Your task to perform on an android device: toggle sleep mode Image 0: 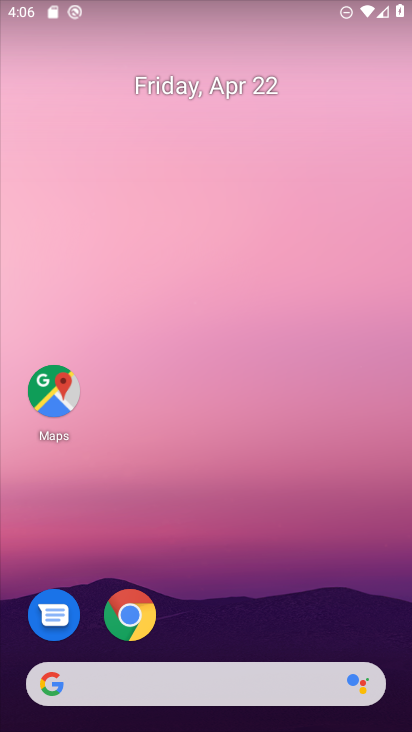
Step 0: drag from (245, 615) to (293, 32)
Your task to perform on an android device: toggle sleep mode Image 1: 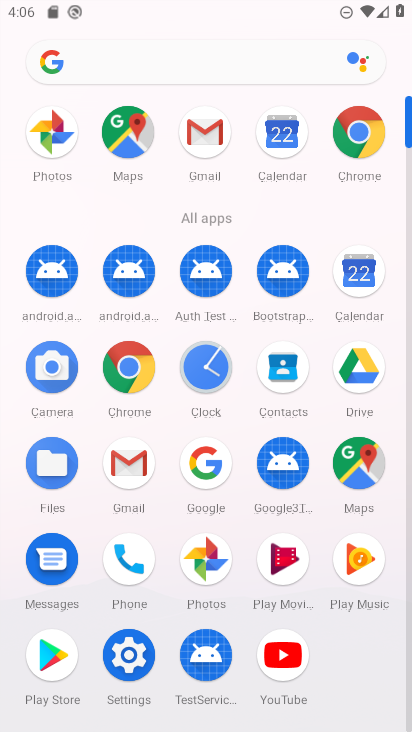
Step 1: click (118, 659)
Your task to perform on an android device: toggle sleep mode Image 2: 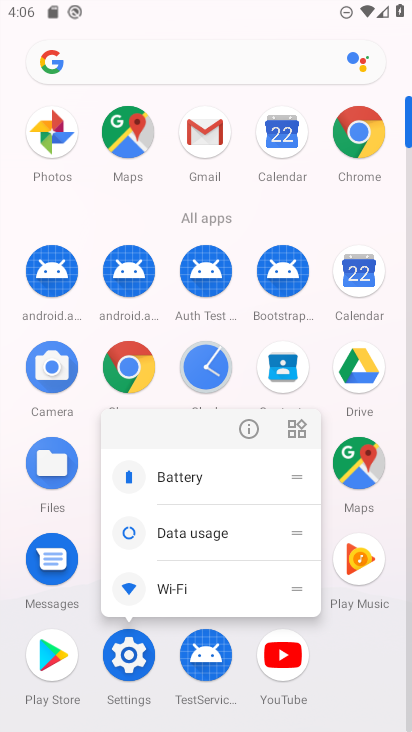
Step 2: click (115, 648)
Your task to perform on an android device: toggle sleep mode Image 3: 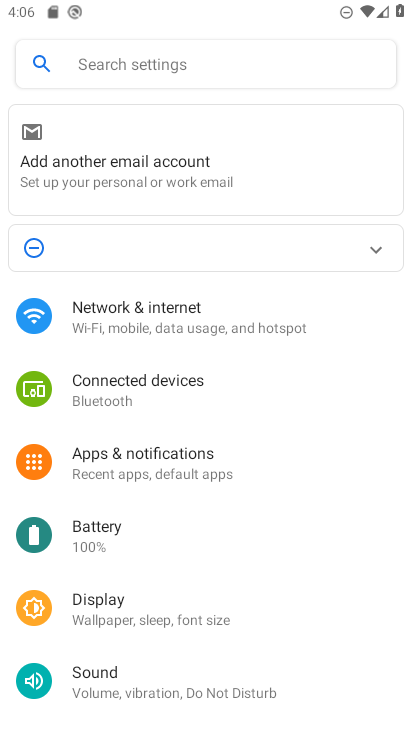
Step 3: click (109, 623)
Your task to perform on an android device: toggle sleep mode Image 4: 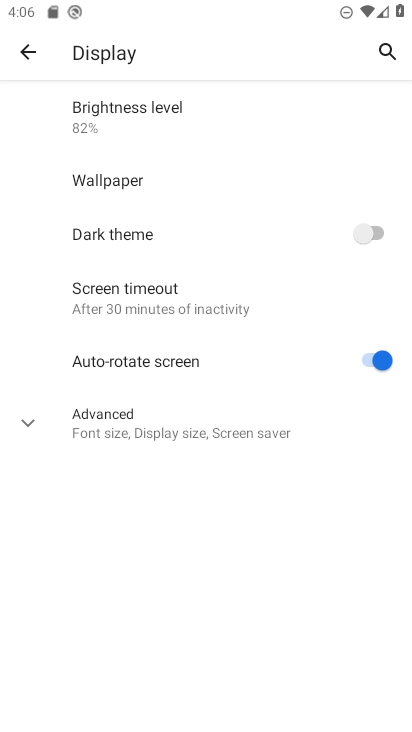
Step 4: click (151, 300)
Your task to perform on an android device: toggle sleep mode Image 5: 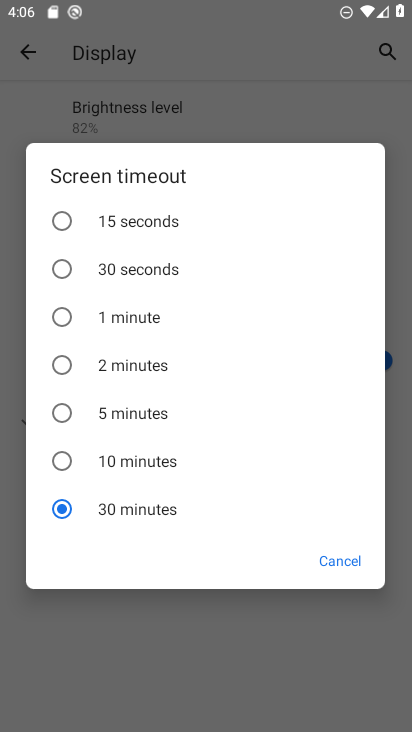
Step 5: click (112, 466)
Your task to perform on an android device: toggle sleep mode Image 6: 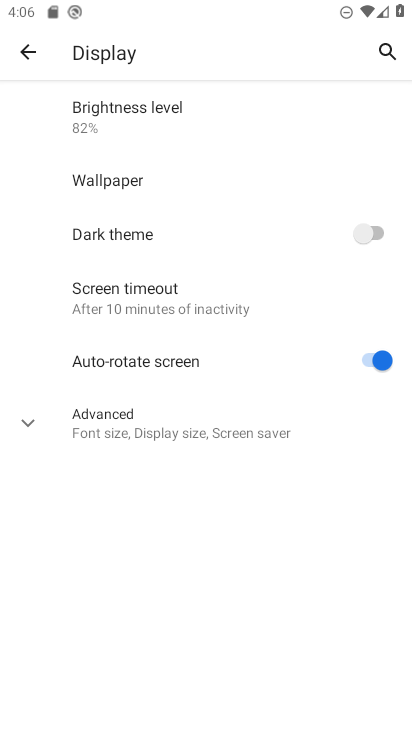
Step 6: task complete